Your task to perform on an android device: change the clock display to show seconds Image 0: 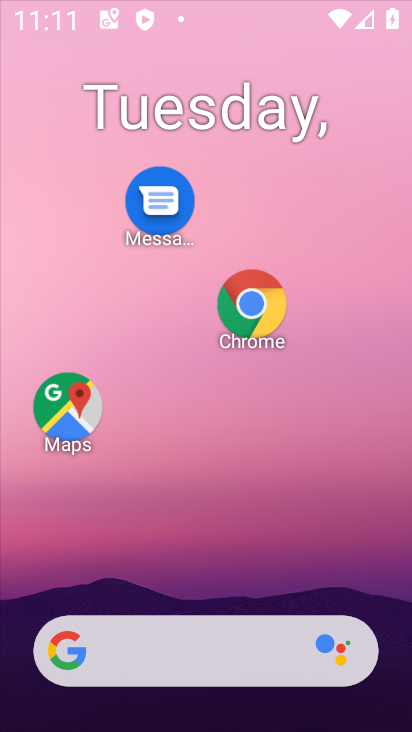
Step 0: drag from (181, 605) to (208, 103)
Your task to perform on an android device: change the clock display to show seconds Image 1: 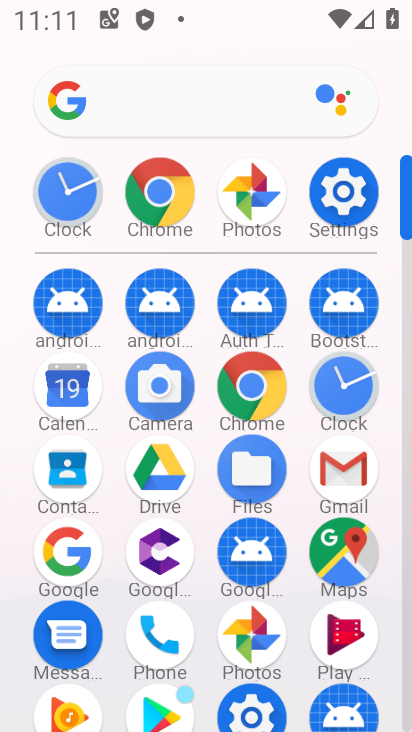
Step 1: click (137, 202)
Your task to perform on an android device: change the clock display to show seconds Image 2: 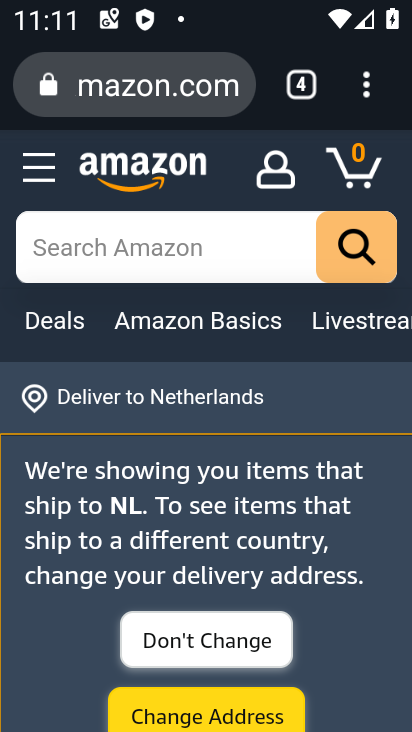
Step 2: press home button
Your task to perform on an android device: change the clock display to show seconds Image 3: 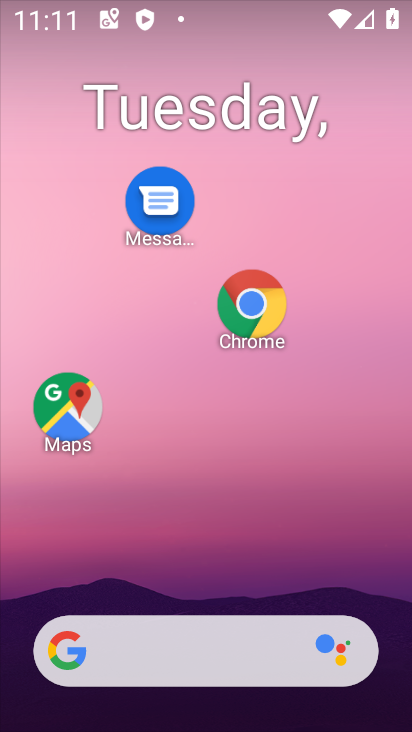
Step 3: drag from (225, 584) to (289, 190)
Your task to perform on an android device: change the clock display to show seconds Image 4: 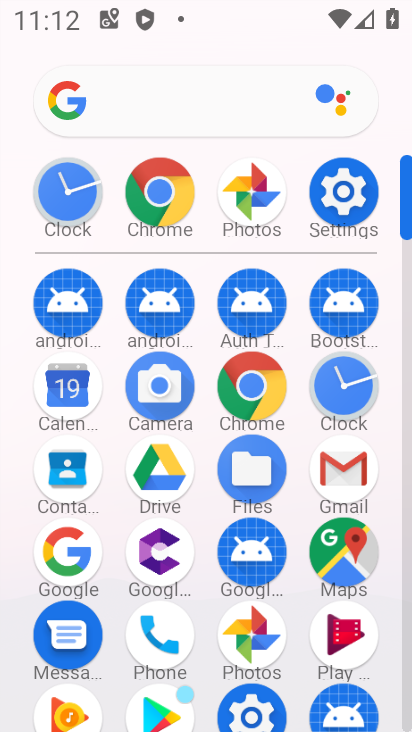
Step 4: click (344, 394)
Your task to perform on an android device: change the clock display to show seconds Image 5: 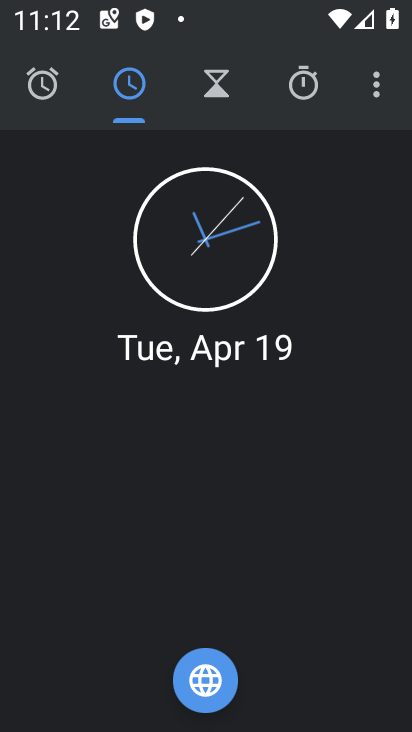
Step 5: click (367, 100)
Your task to perform on an android device: change the clock display to show seconds Image 6: 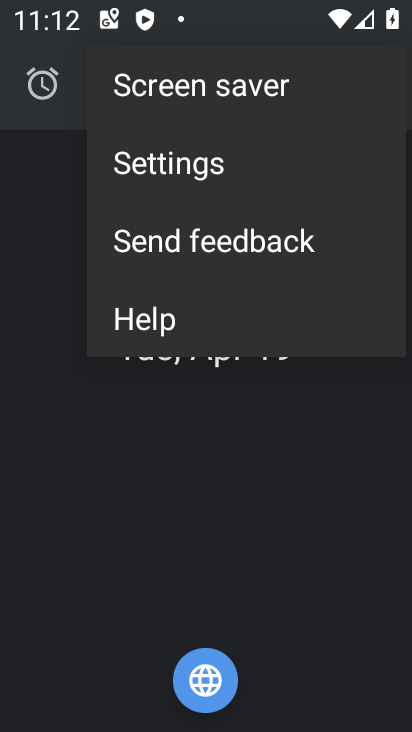
Step 6: click (273, 162)
Your task to perform on an android device: change the clock display to show seconds Image 7: 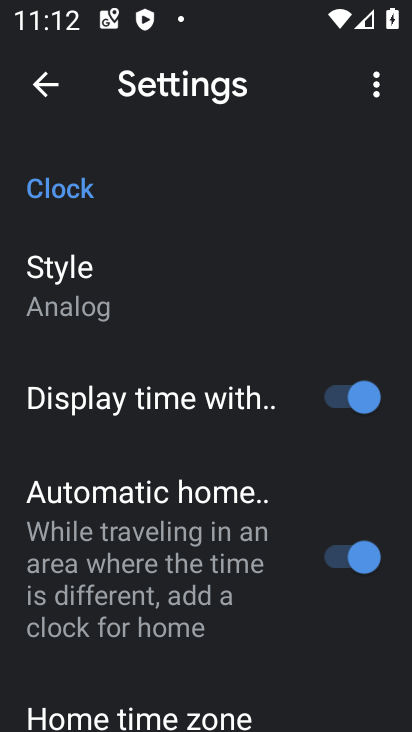
Step 7: task complete